Your task to perform on an android device: turn off data saver in the chrome app Image 0: 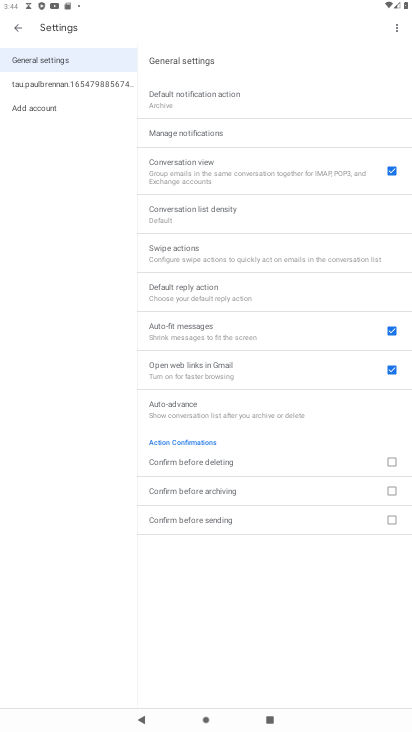
Step 0: press home button
Your task to perform on an android device: turn off data saver in the chrome app Image 1: 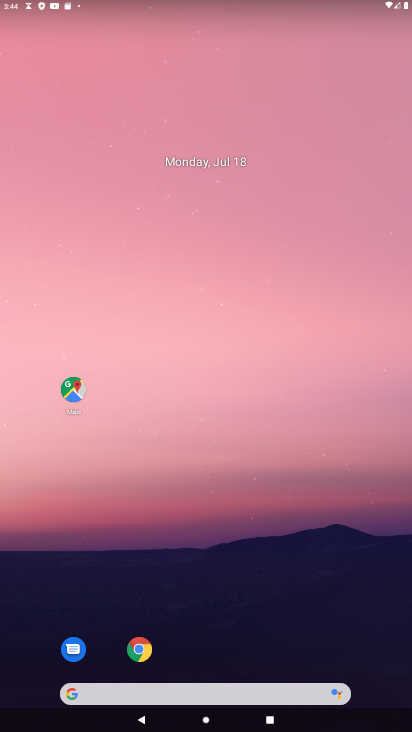
Step 1: click (130, 657)
Your task to perform on an android device: turn off data saver in the chrome app Image 2: 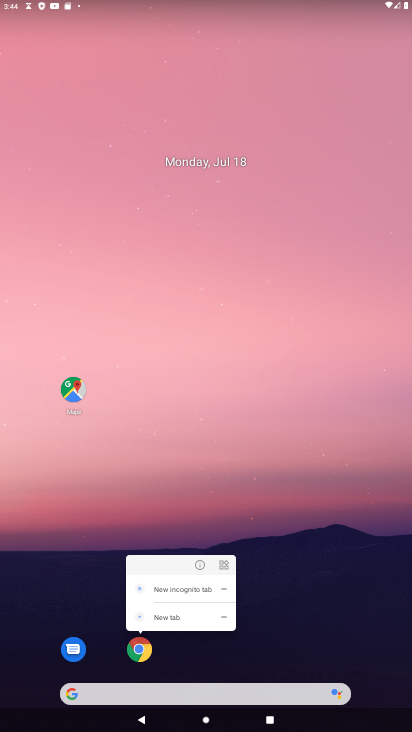
Step 2: click (129, 638)
Your task to perform on an android device: turn off data saver in the chrome app Image 3: 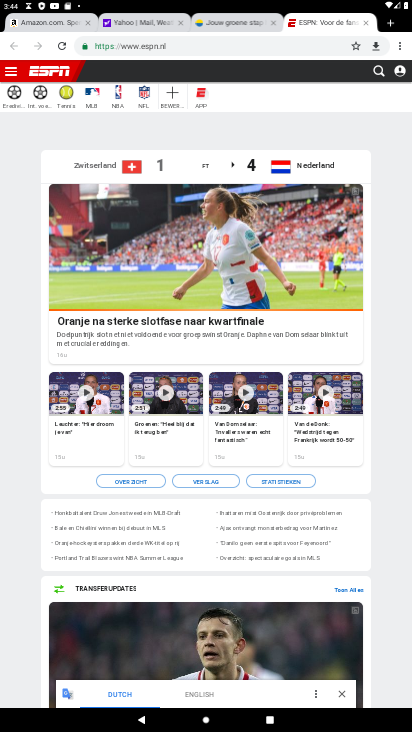
Step 3: drag from (398, 40) to (304, 335)
Your task to perform on an android device: turn off data saver in the chrome app Image 4: 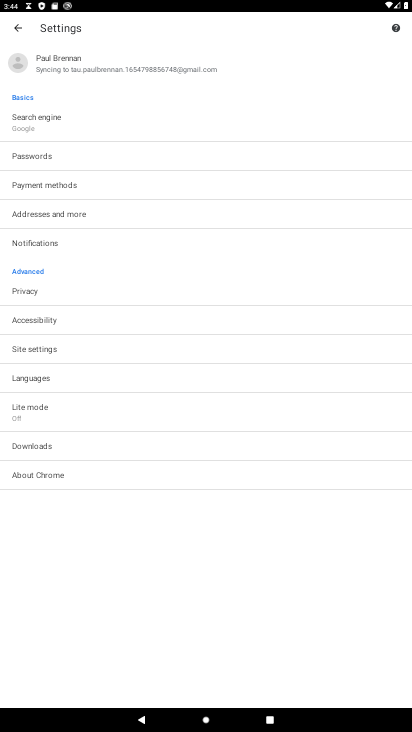
Step 4: click (30, 416)
Your task to perform on an android device: turn off data saver in the chrome app Image 5: 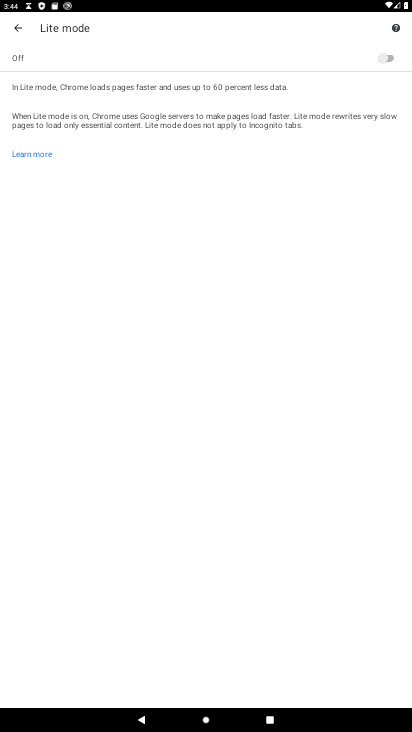
Step 5: task complete